Your task to perform on an android device: visit the assistant section in the google photos Image 0: 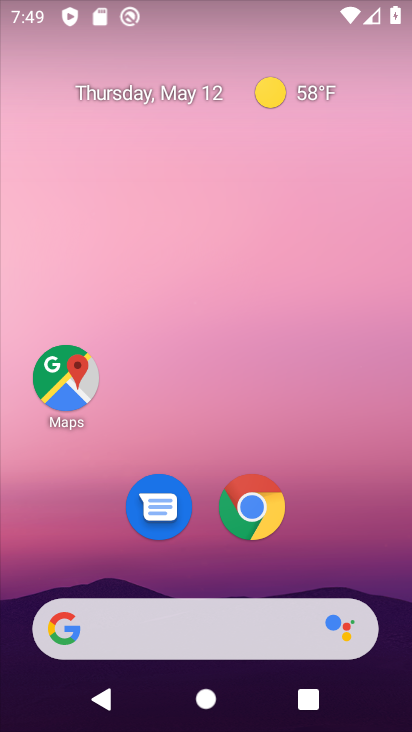
Step 0: drag from (200, 573) to (230, 207)
Your task to perform on an android device: visit the assistant section in the google photos Image 1: 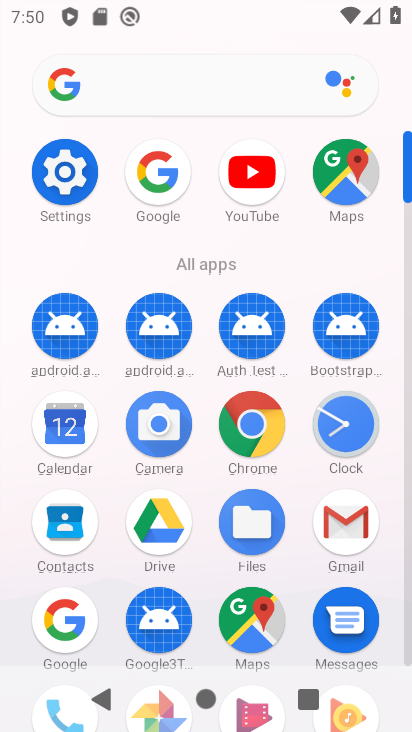
Step 1: drag from (203, 529) to (217, 295)
Your task to perform on an android device: visit the assistant section in the google photos Image 2: 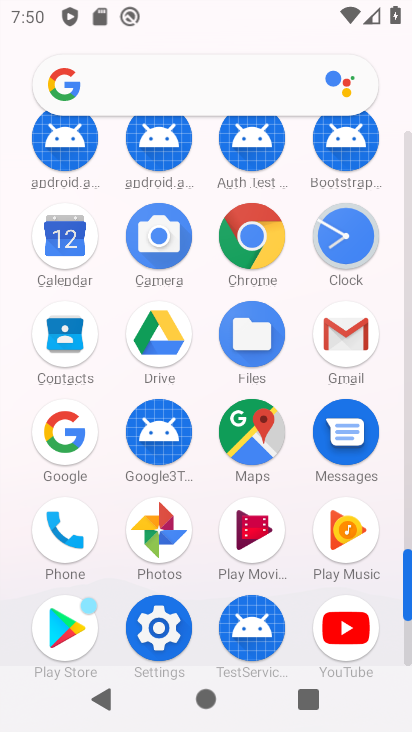
Step 2: click (168, 516)
Your task to perform on an android device: visit the assistant section in the google photos Image 3: 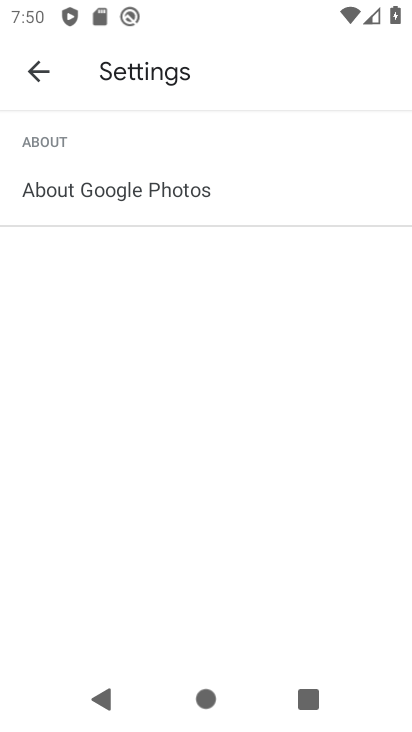
Step 3: click (29, 76)
Your task to perform on an android device: visit the assistant section in the google photos Image 4: 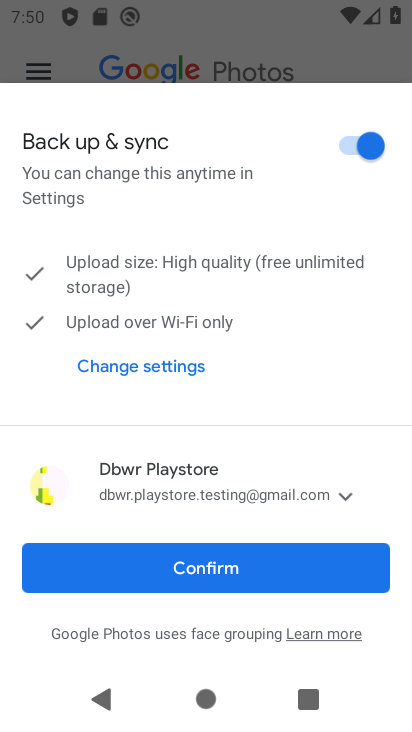
Step 4: click (210, 561)
Your task to perform on an android device: visit the assistant section in the google photos Image 5: 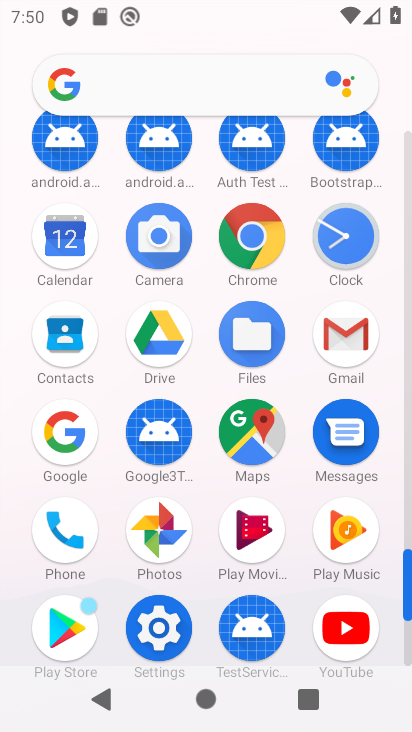
Step 5: click (165, 524)
Your task to perform on an android device: visit the assistant section in the google photos Image 6: 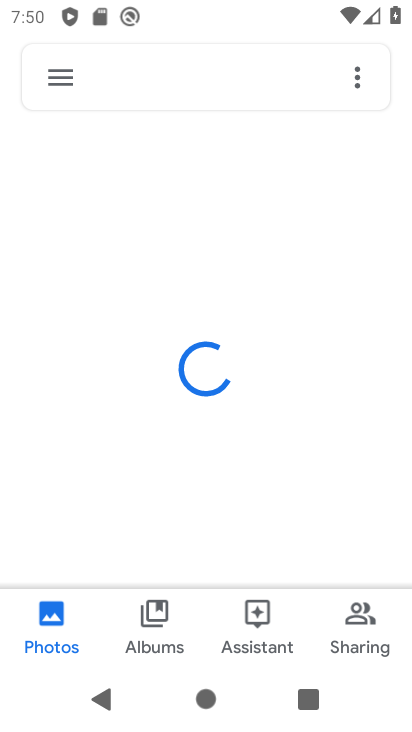
Step 6: click (269, 629)
Your task to perform on an android device: visit the assistant section in the google photos Image 7: 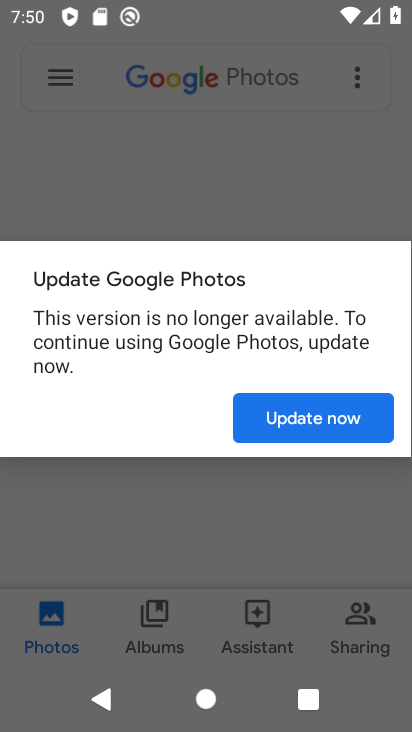
Step 7: click (290, 426)
Your task to perform on an android device: visit the assistant section in the google photos Image 8: 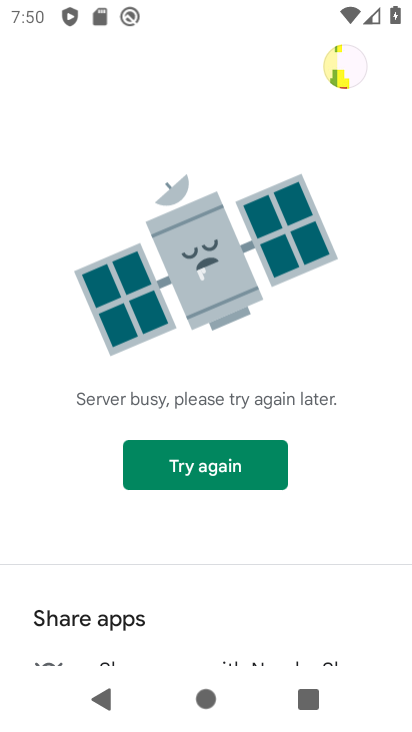
Step 8: press back button
Your task to perform on an android device: visit the assistant section in the google photos Image 9: 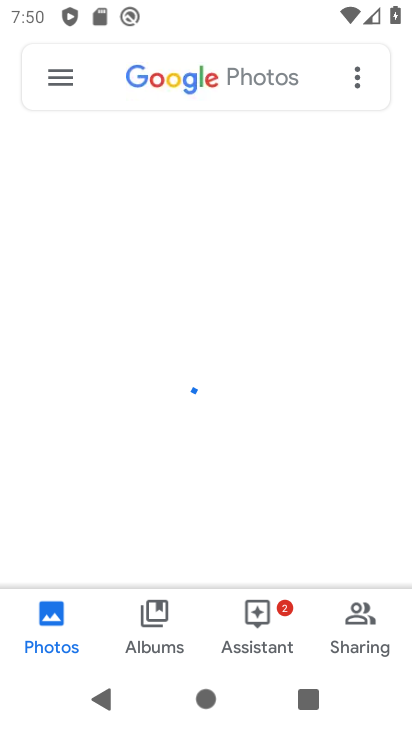
Step 9: click (262, 636)
Your task to perform on an android device: visit the assistant section in the google photos Image 10: 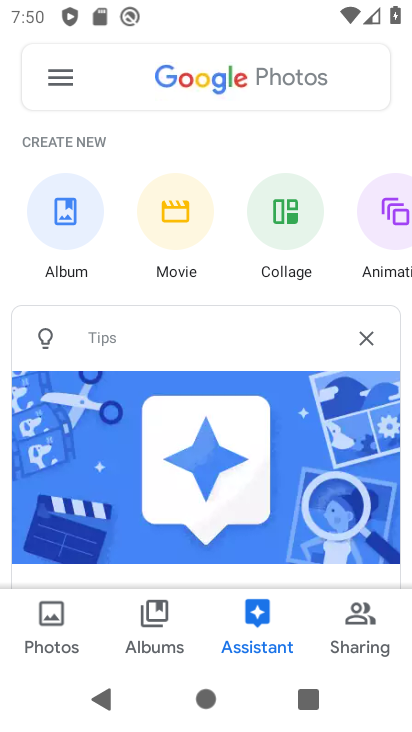
Step 10: task complete